Your task to perform on an android device: remove spam from my inbox in the gmail app Image 0: 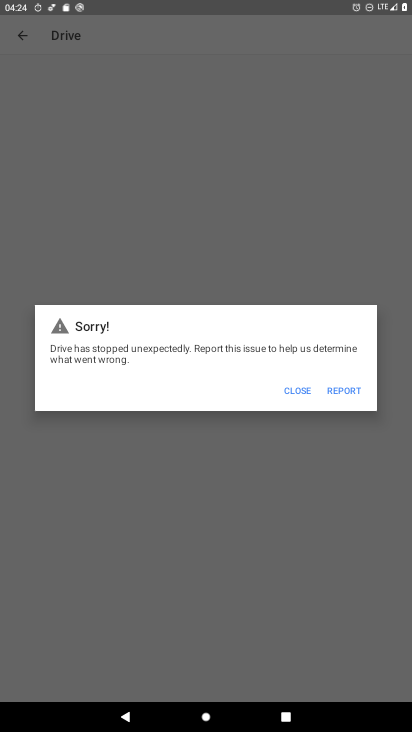
Step 0: press home button
Your task to perform on an android device: remove spam from my inbox in the gmail app Image 1: 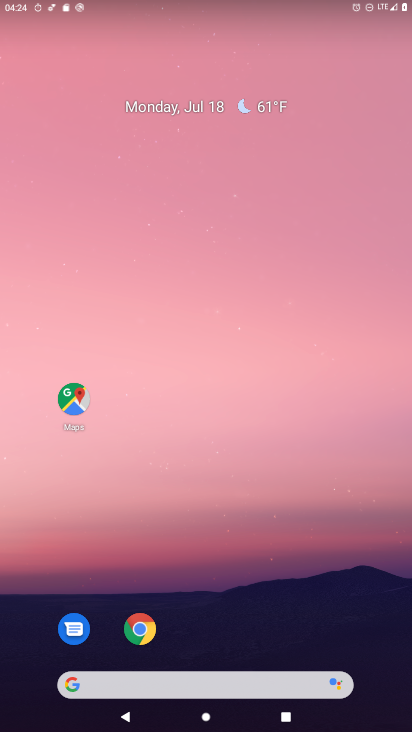
Step 1: drag from (181, 688) to (312, 97)
Your task to perform on an android device: remove spam from my inbox in the gmail app Image 2: 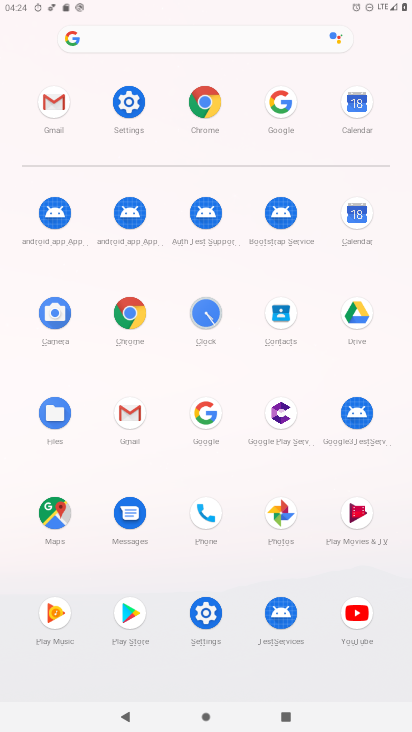
Step 2: click (54, 102)
Your task to perform on an android device: remove spam from my inbox in the gmail app Image 3: 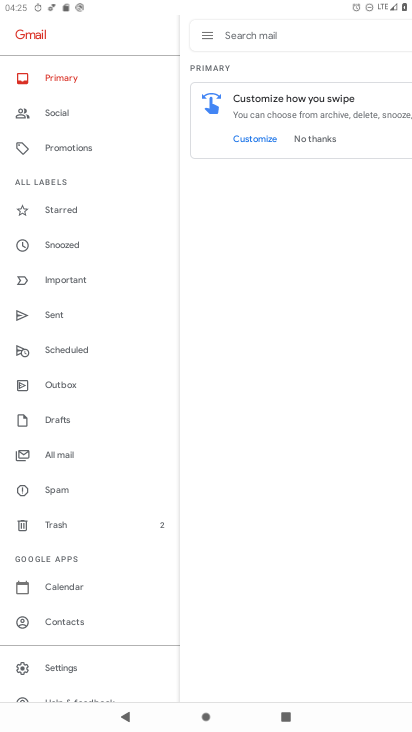
Step 3: click (64, 491)
Your task to perform on an android device: remove spam from my inbox in the gmail app Image 4: 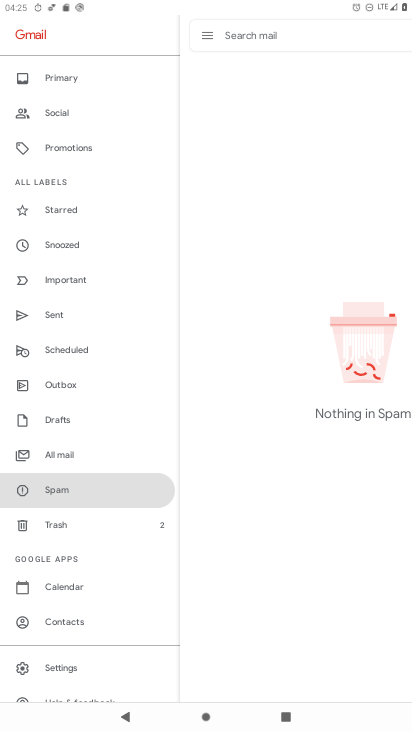
Step 4: task complete